Your task to perform on an android device: turn off translation in the chrome app Image 0: 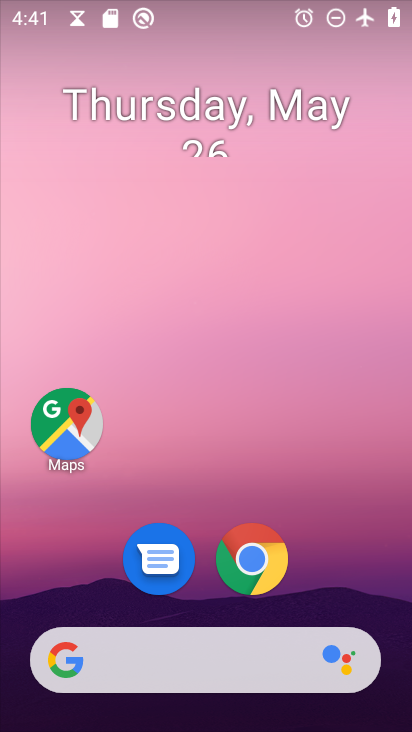
Step 0: click (259, 546)
Your task to perform on an android device: turn off translation in the chrome app Image 1: 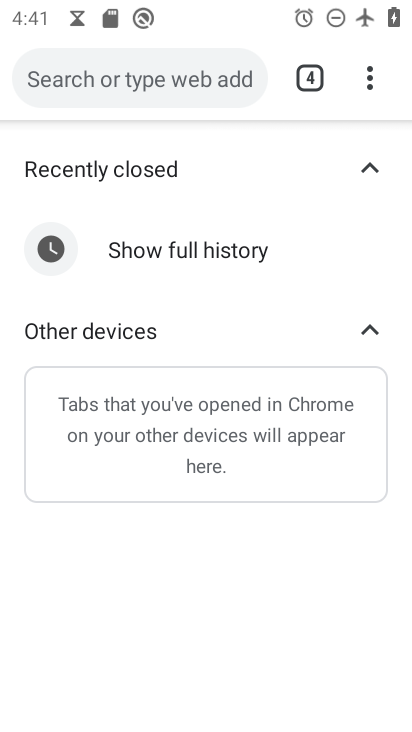
Step 1: click (358, 66)
Your task to perform on an android device: turn off translation in the chrome app Image 2: 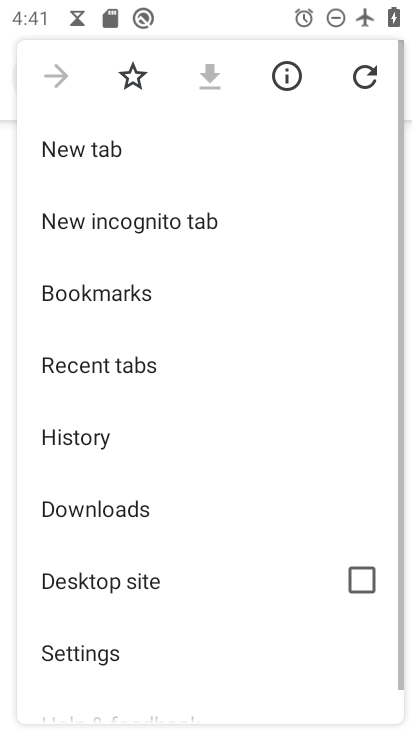
Step 2: drag from (214, 599) to (196, 144)
Your task to perform on an android device: turn off translation in the chrome app Image 3: 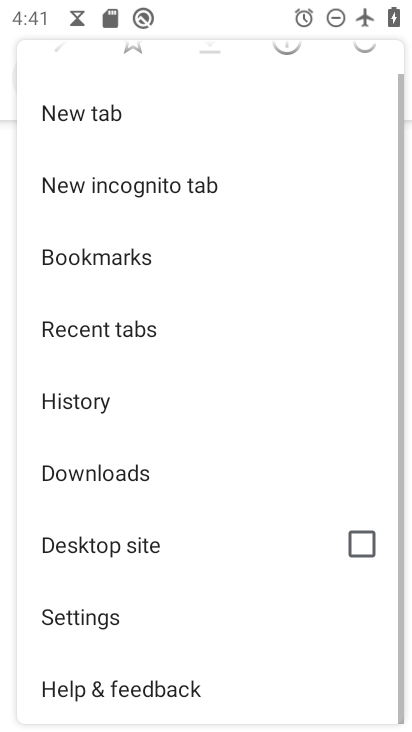
Step 3: click (153, 622)
Your task to perform on an android device: turn off translation in the chrome app Image 4: 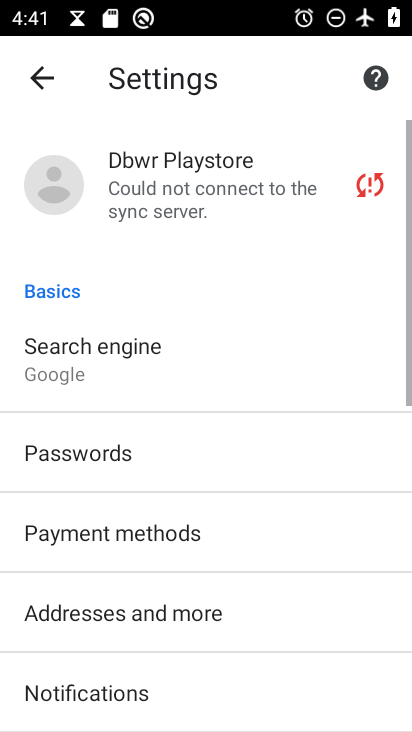
Step 4: drag from (217, 620) to (229, 32)
Your task to perform on an android device: turn off translation in the chrome app Image 5: 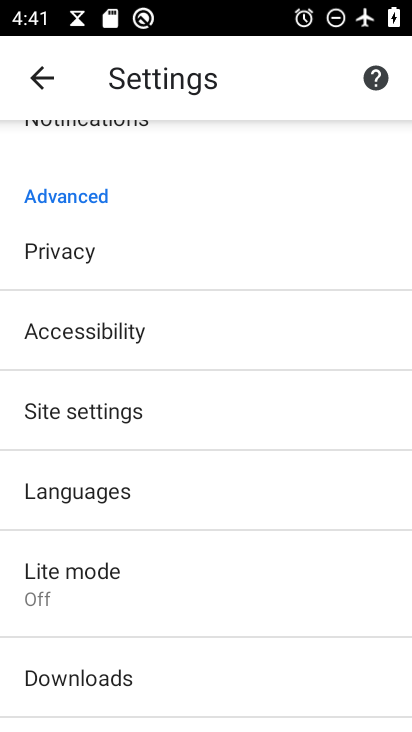
Step 5: drag from (216, 580) to (233, 262)
Your task to perform on an android device: turn off translation in the chrome app Image 6: 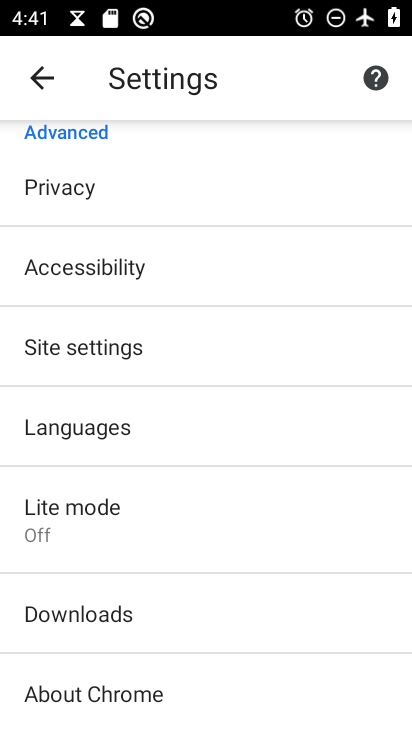
Step 6: click (169, 434)
Your task to perform on an android device: turn off translation in the chrome app Image 7: 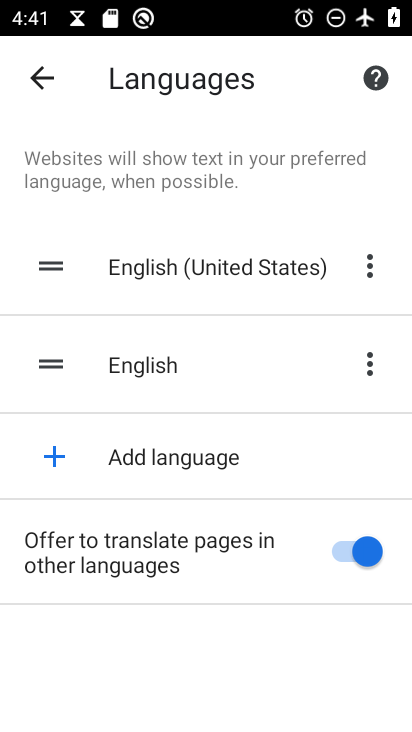
Step 7: click (353, 546)
Your task to perform on an android device: turn off translation in the chrome app Image 8: 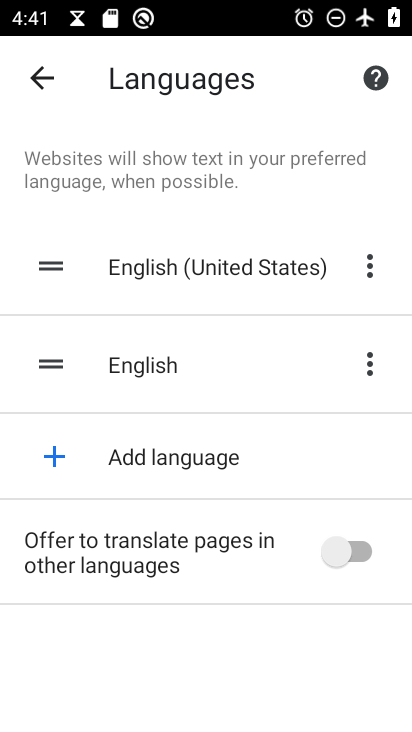
Step 8: task complete